Your task to perform on an android device: change the upload size in google photos Image 0: 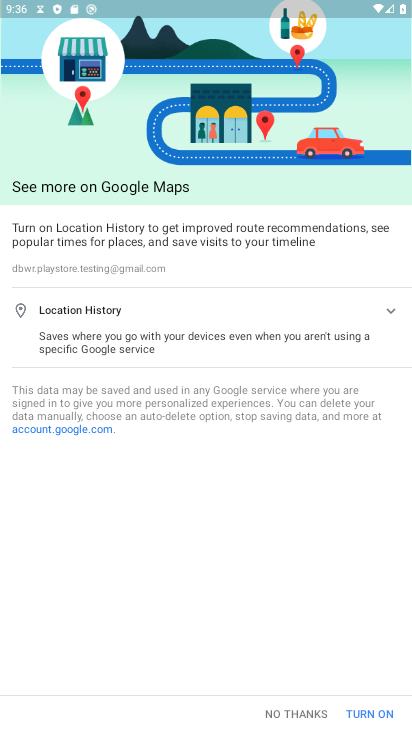
Step 0: press home button
Your task to perform on an android device: change the upload size in google photos Image 1: 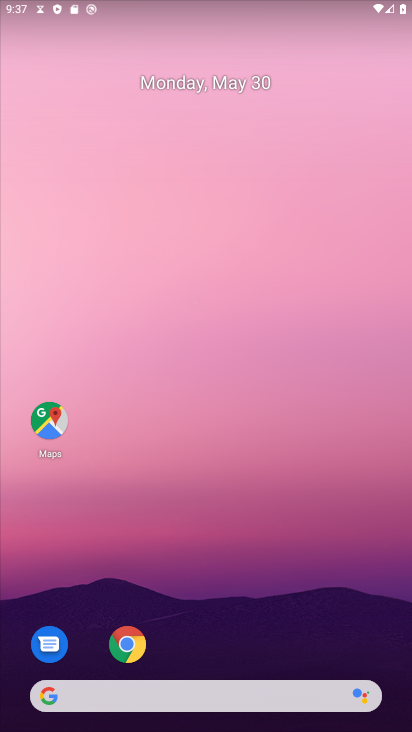
Step 1: drag from (212, 665) to (278, 118)
Your task to perform on an android device: change the upload size in google photos Image 2: 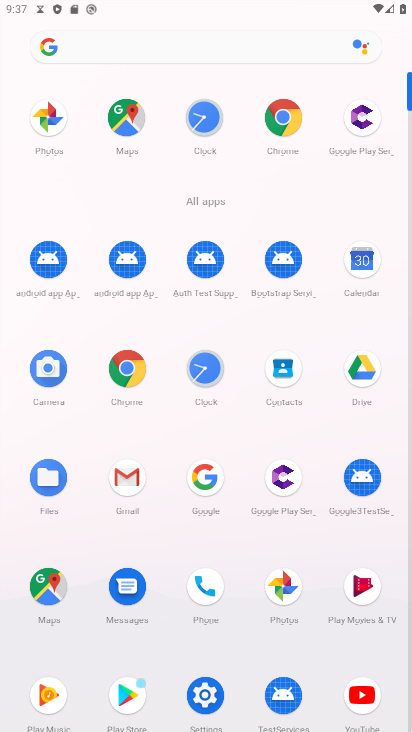
Step 2: click (286, 597)
Your task to perform on an android device: change the upload size in google photos Image 3: 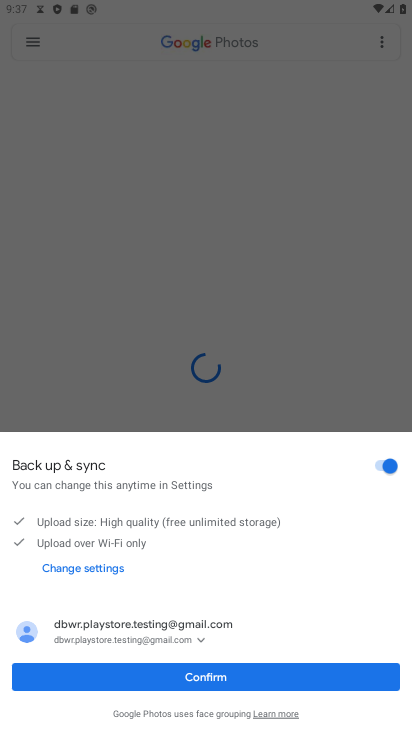
Step 3: click (220, 677)
Your task to perform on an android device: change the upload size in google photos Image 4: 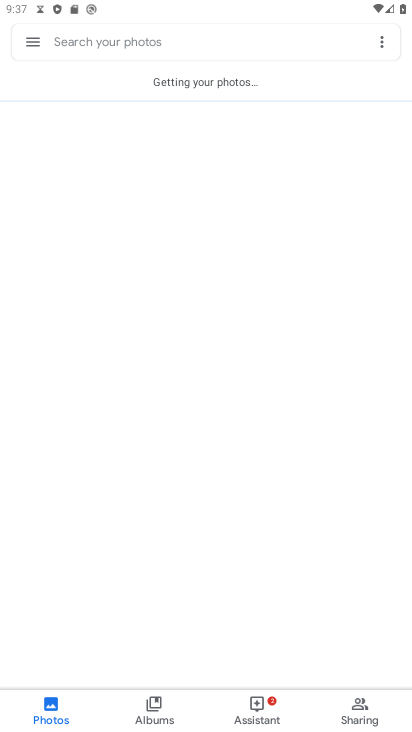
Step 4: click (40, 48)
Your task to perform on an android device: change the upload size in google photos Image 5: 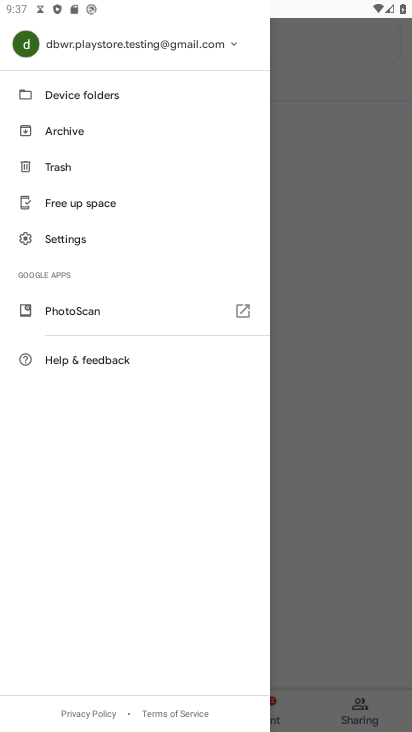
Step 5: click (94, 243)
Your task to perform on an android device: change the upload size in google photos Image 6: 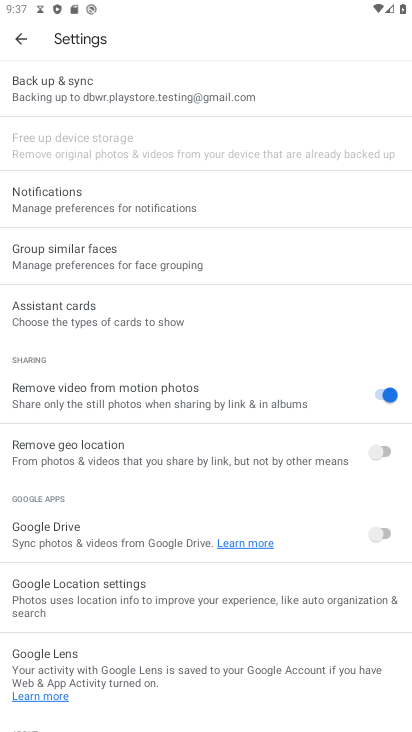
Step 6: click (190, 92)
Your task to perform on an android device: change the upload size in google photos Image 7: 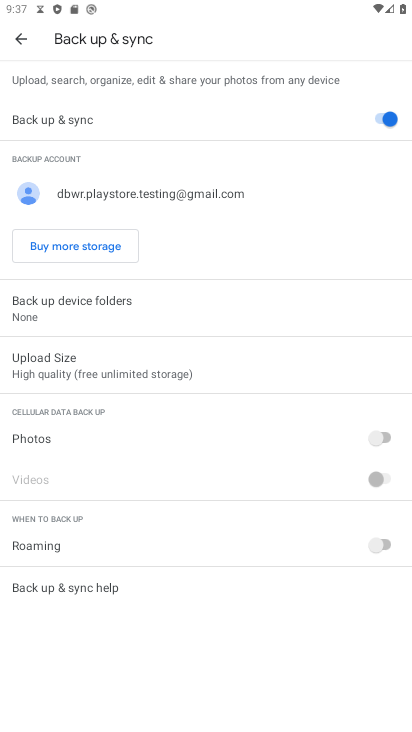
Step 7: click (181, 380)
Your task to perform on an android device: change the upload size in google photos Image 8: 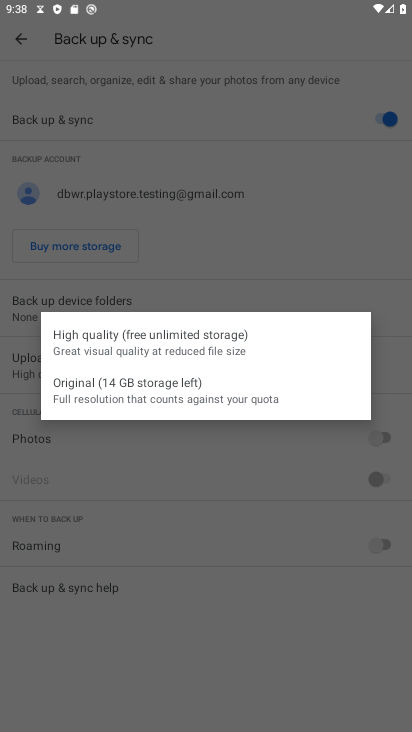
Step 8: click (142, 386)
Your task to perform on an android device: change the upload size in google photos Image 9: 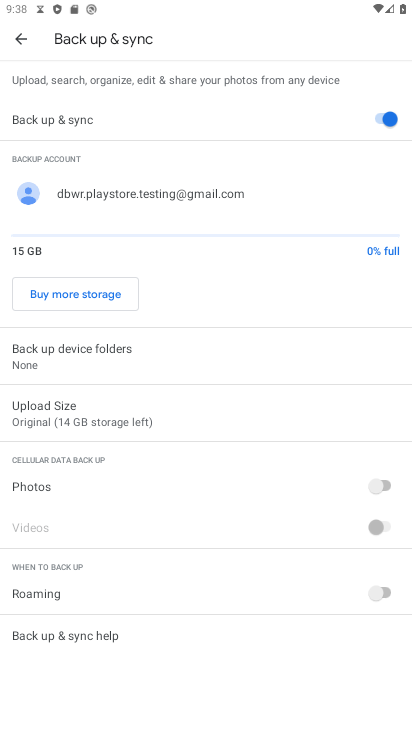
Step 9: task complete